Your task to perform on an android device: turn vacation reply on in the gmail app Image 0: 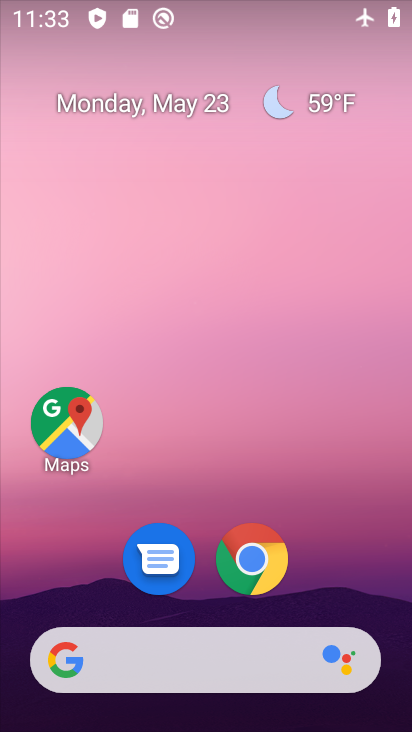
Step 0: drag from (388, 638) to (297, 42)
Your task to perform on an android device: turn vacation reply on in the gmail app Image 1: 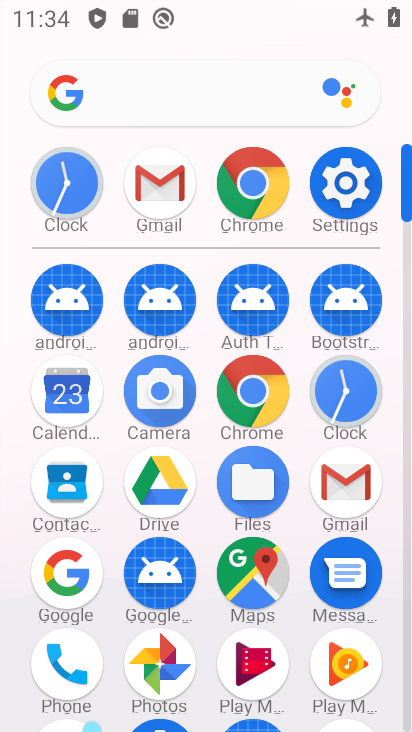
Step 1: click (153, 214)
Your task to perform on an android device: turn vacation reply on in the gmail app Image 2: 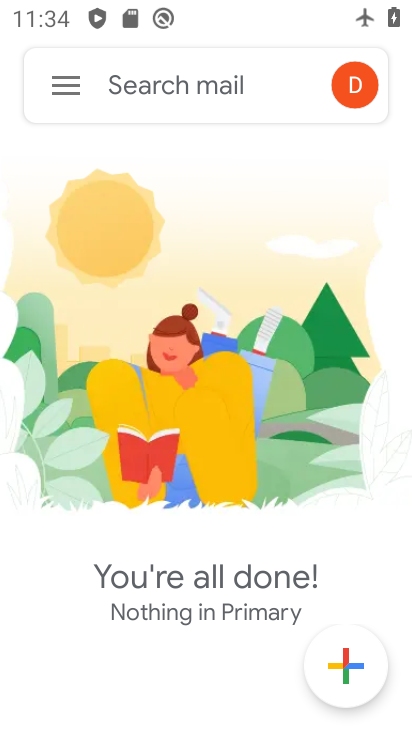
Step 2: click (33, 68)
Your task to perform on an android device: turn vacation reply on in the gmail app Image 3: 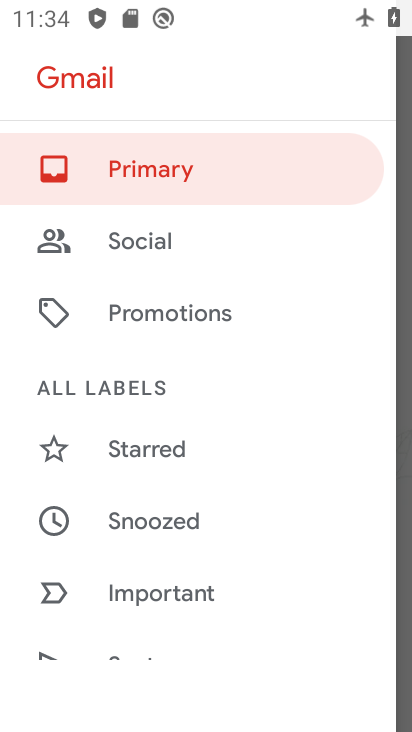
Step 3: drag from (165, 636) to (220, 34)
Your task to perform on an android device: turn vacation reply on in the gmail app Image 4: 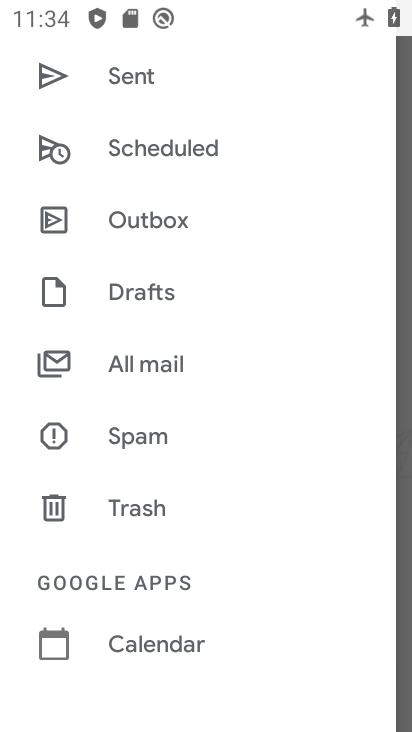
Step 4: drag from (192, 614) to (227, 45)
Your task to perform on an android device: turn vacation reply on in the gmail app Image 5: 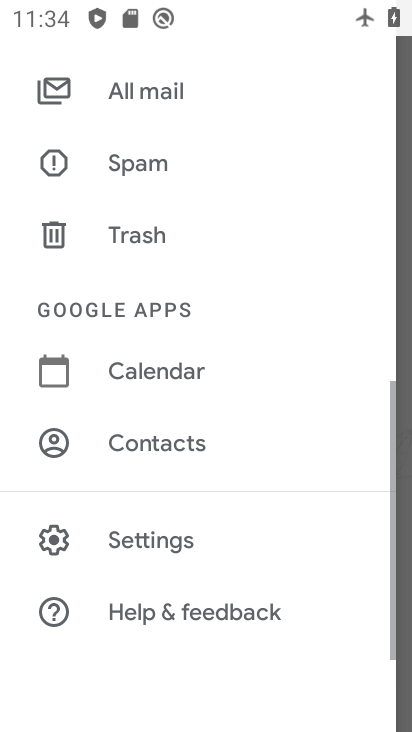
Step 5: click (178, 540)
Your task to perform on an android device: turn vacation reply on in the gmail app Image 6: 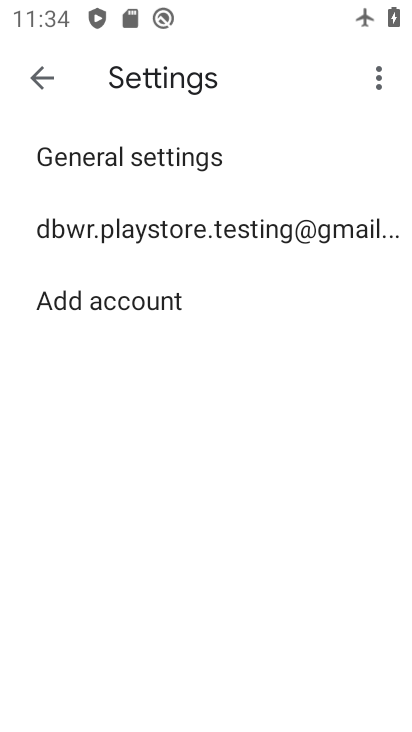
Step 6: click (170, 633)
Your task to perform on an android device: turn vacation reply on in the gmail app Image 7: 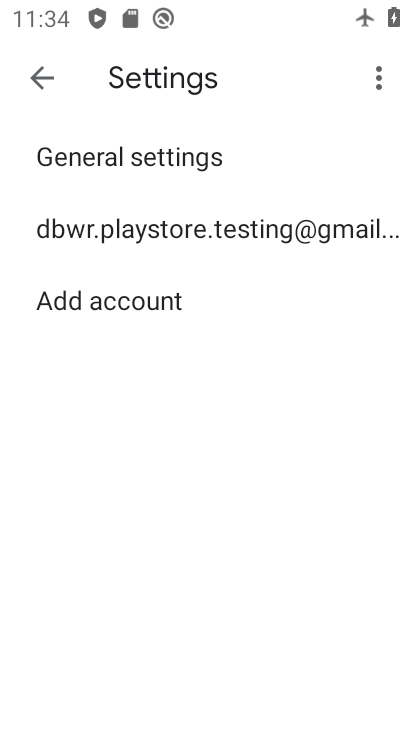
Step 7: click (264, 226)
Your task to perform on an android device: turn vacation reply on in the gmail app Image 8: 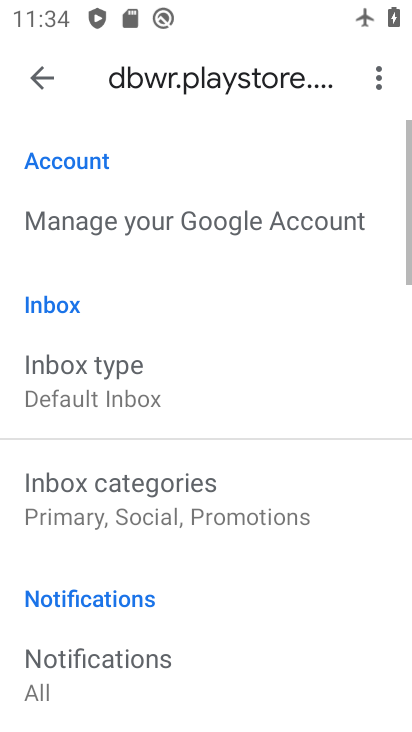
Step 8: drag from (183, 661) to (220, 110)
Your task to perform on an android device: turn vacation reply on in the gmail app Image 9: 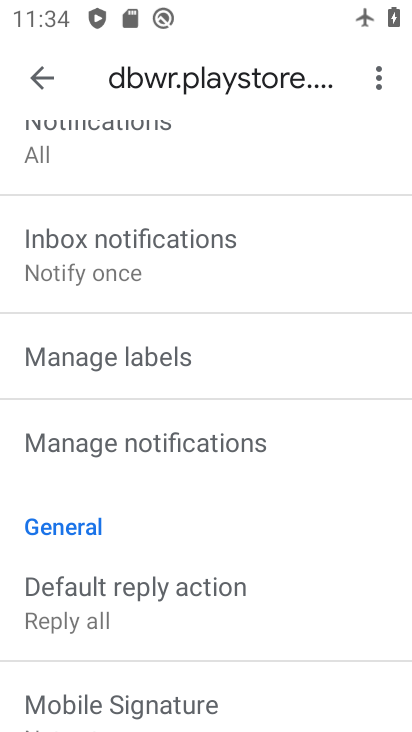
Step 9: drag from (198, 616) to (199, 74)
Your task to perform on an android device: turn vacation reply on in the gmail app Image 10: 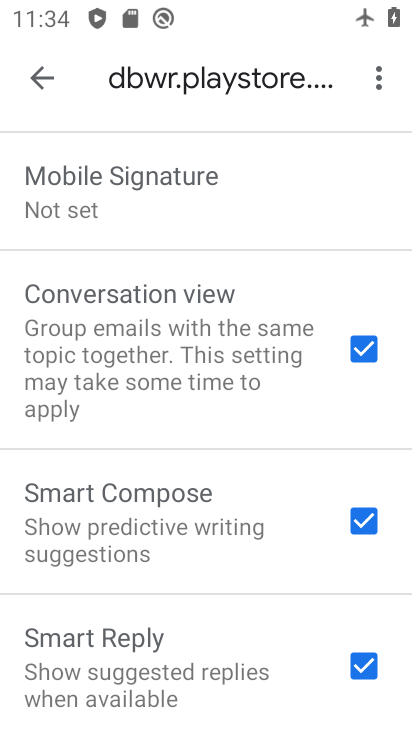
Step 10: drag from (223, 671) to (259, 244)
Your task to perform on an android device: turn vacation reply on in the gmail app Image 11: 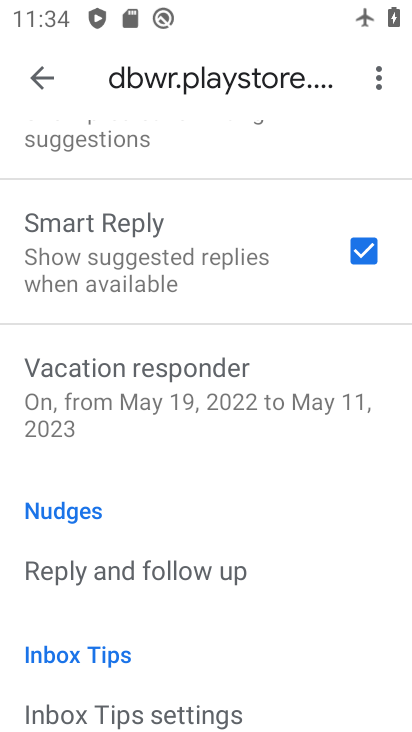
Step 11: click (178, 375)
Your task to perform on an android device: turn vacation reply on in the gmail app Image 12: 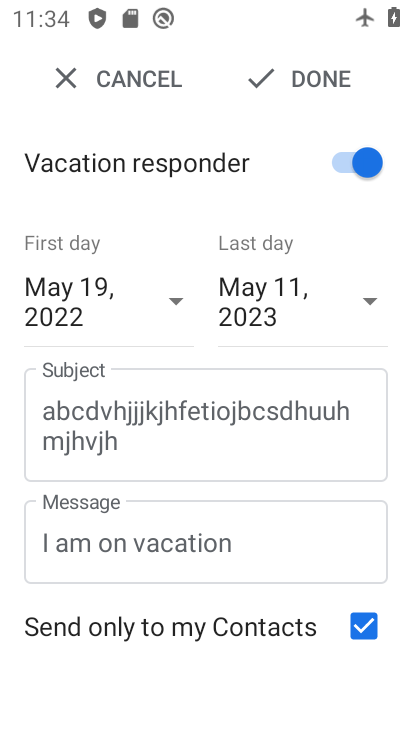
Step 12: task complete